Your task to perform on an android device: set default search engine in the chrome app Image 0: 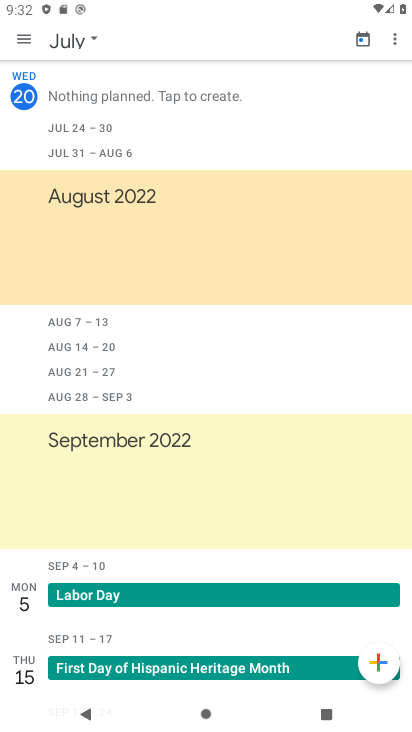
Step 0: drag from (203, 684) to (199, 157)
Your task to perform on an android device: set default search engine in the chrome app Image 1: 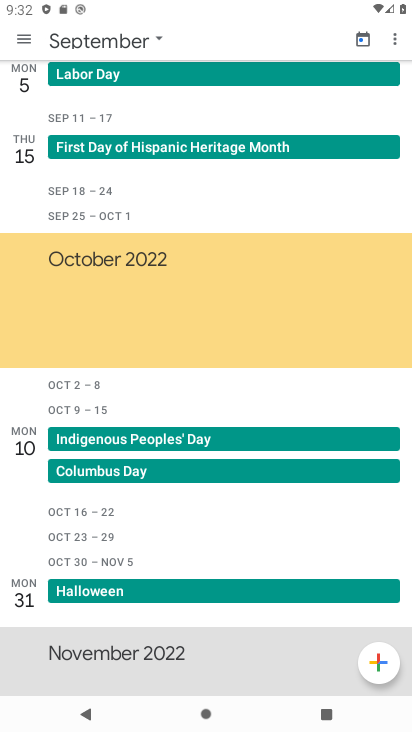
Step 1: press back button
Your task to perform on an android device: set default search engine in the chrome app Image 2: 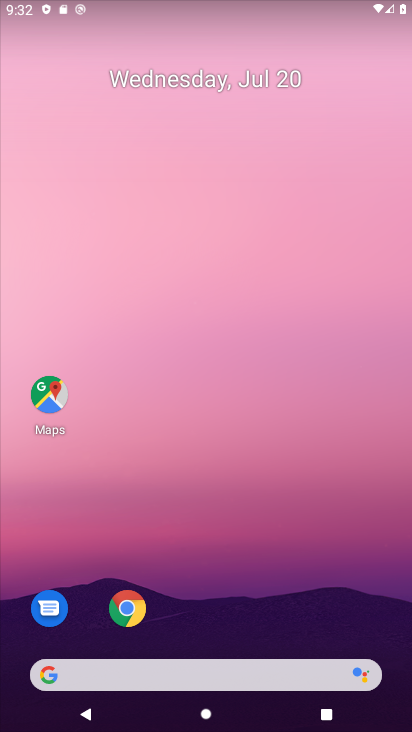
Step 2: drag from (245, 664) to (191, 278)
Your task to perform on an android device: set default search engine in the chrome app Image 3: 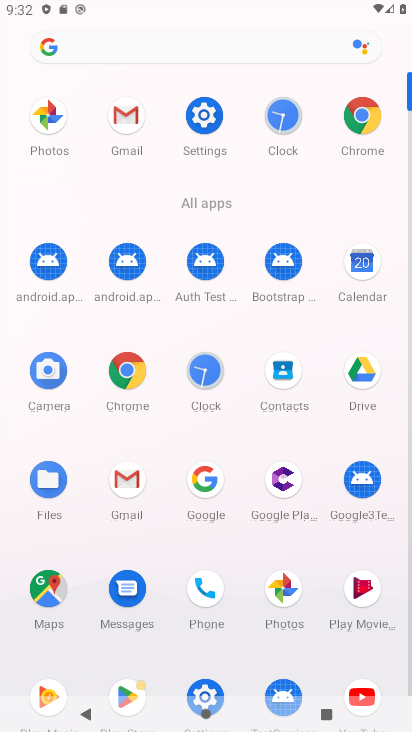
Step 3: click (137, 127)
Your task to perform on an android device: set default search engine in the chrome app Image 4: 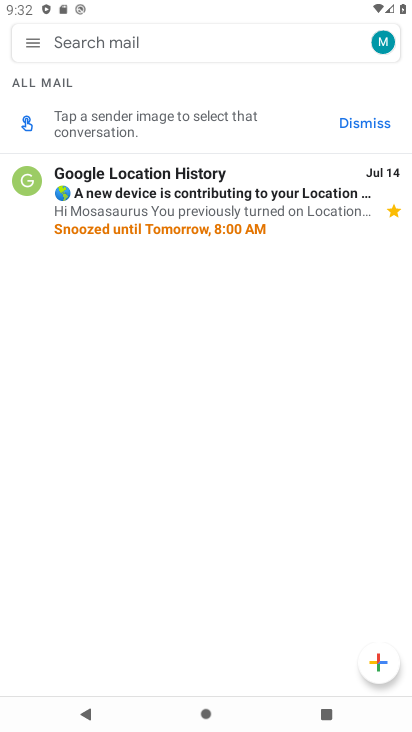
Step 4: press back button
Your task to perform on an android device: set default search engine in the chrome app Image 5: 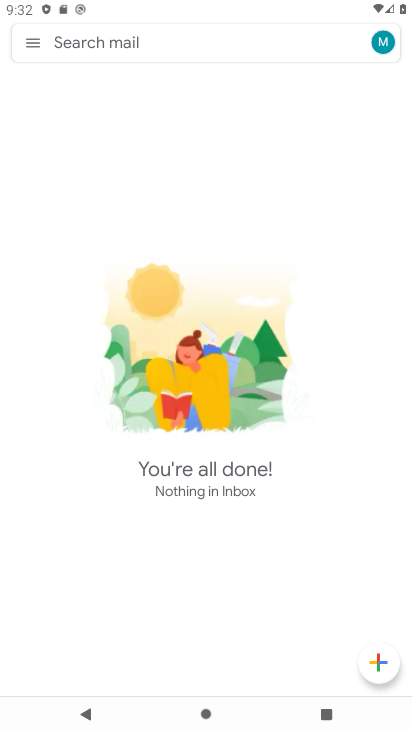
Step 5: press home button
Your task to perform on an android device: set default search engine in the chrome app Image 6: 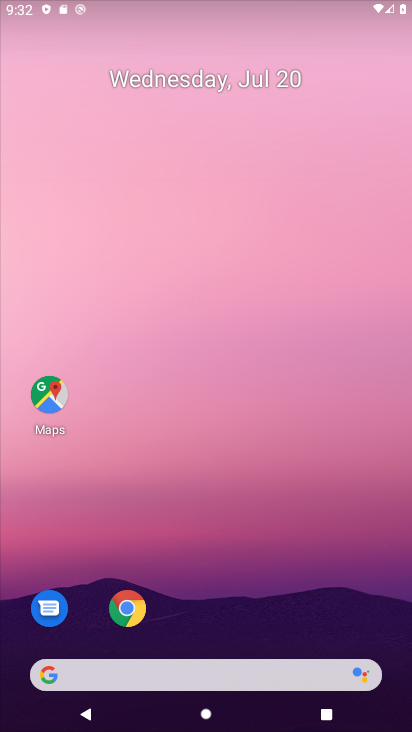
Step 6: drag from (253, 548) to (259, 159)
Your task to perform on an android device: set default search engine in the chrome app Image 7: 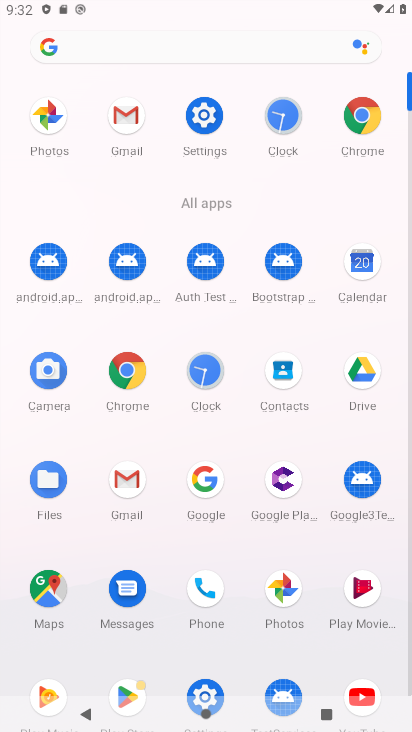
Step 7: click (365, 121)
Your task to perform on an android device: set default search engine in the chrome app Image 8: 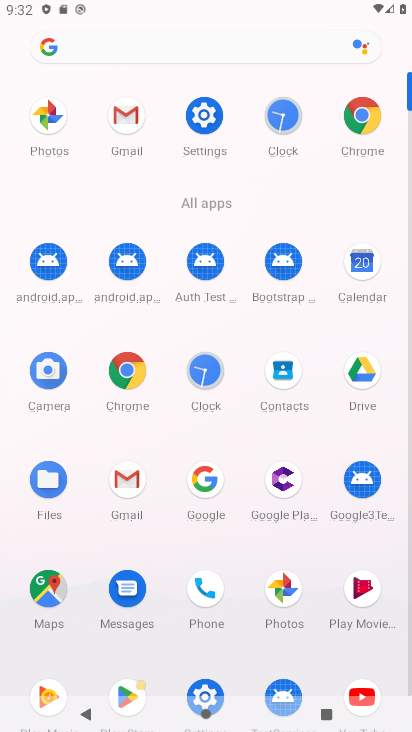
Step 8: click (367, 129)
Your task to perform on an android device: set default search engine in the chrome app Image 9: 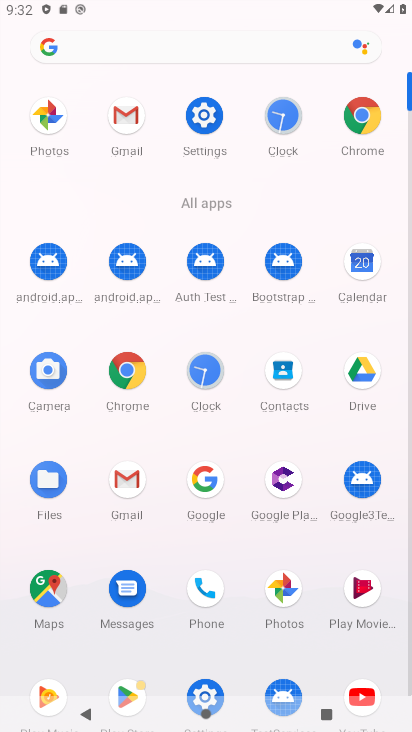
Step 9: click (368, 130)
Your task to perform on an android device: set default search engine in the chrome app Image 10: 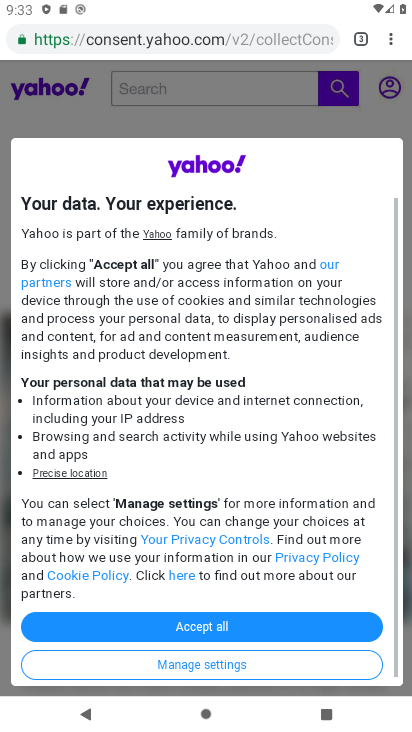
Step 10: drag from (392, 36) to (242, 468)
Your task to perform on an android device: set default search engine in the chrome app Image 11: 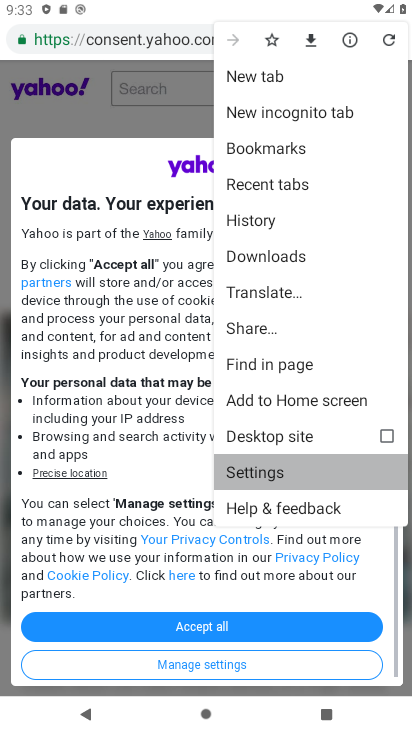
Step 11: click (253, 474)
Your task to perform on an android device: set default search engine in the chrome app Image 12: 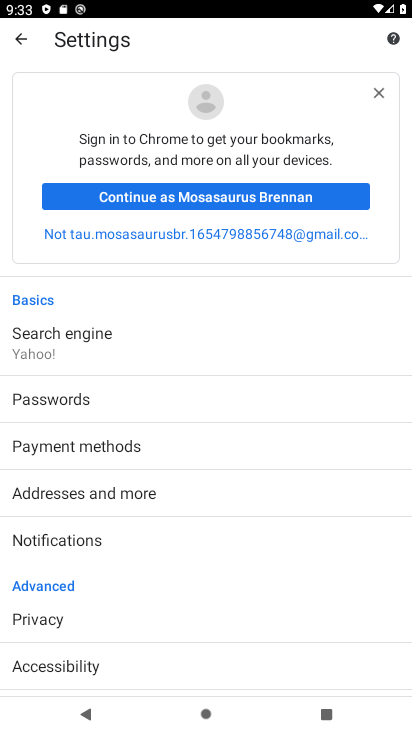
Step 12: click (58, 335)
Your task to perform on an android device: set default search engine in the chrome app Image 13: 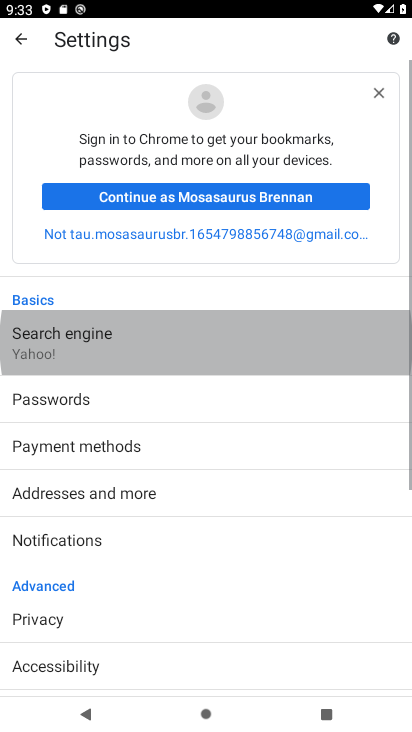
Step 13: click (56, 334)
Your task to perform on an android device: set default search engine in the chrome app Image 14: 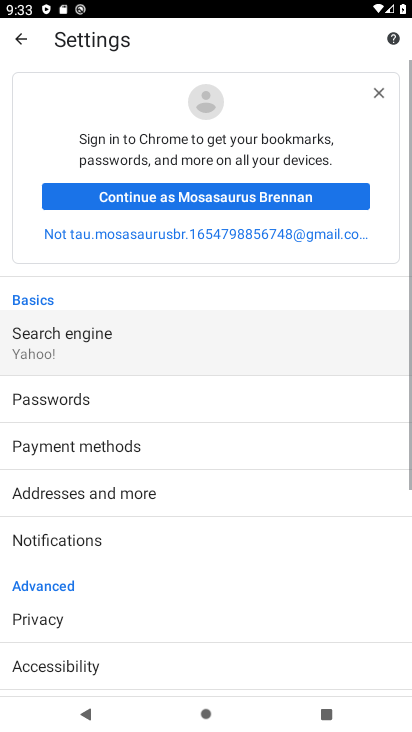
Step 14: click (56, 334)
Your task to perform on an android device: set default search engine in the chrome app Image 15: 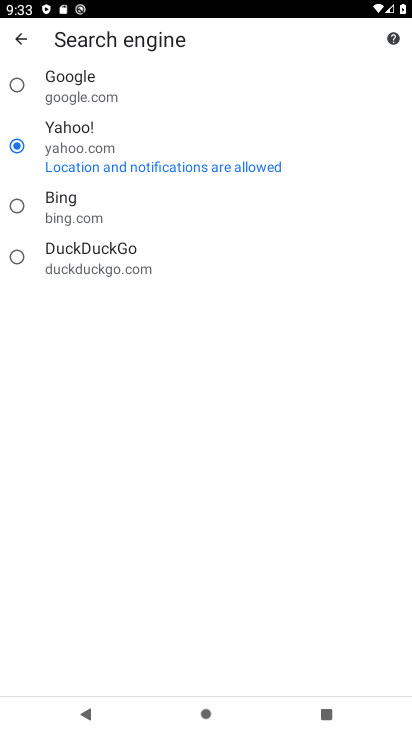
Step 15: click (8, 82)
Your task to perform on an android device: set default search engine in the chrome app Image 16: 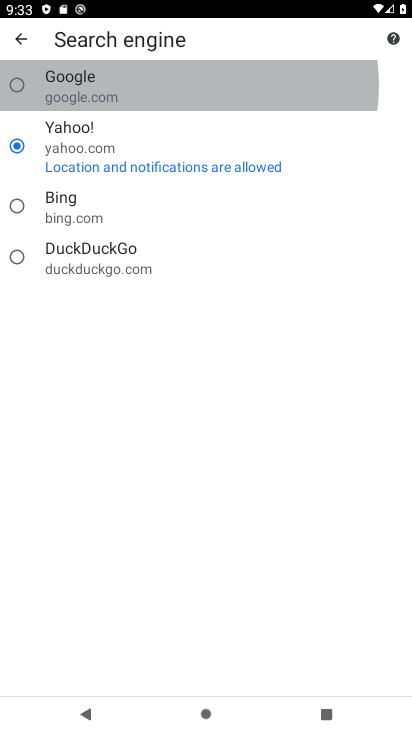
Step 16: click (11, 87)
Your task to perform on an android device: set default search engine in the chrome app Image 17: 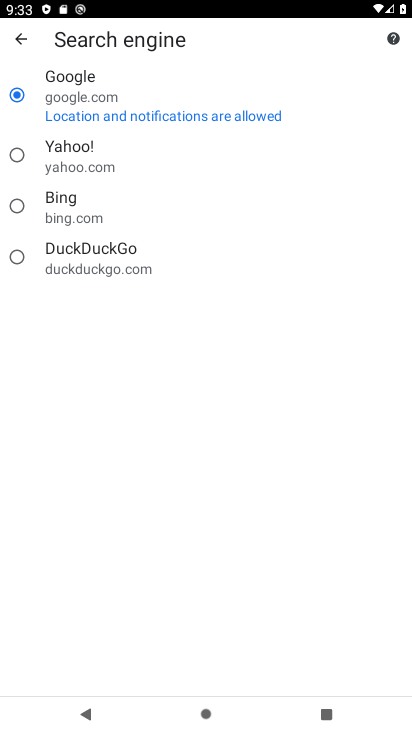
Step 17: task complete